Your task to perform on an android device: open the mobile data screen to see how much data has been used Image 0: 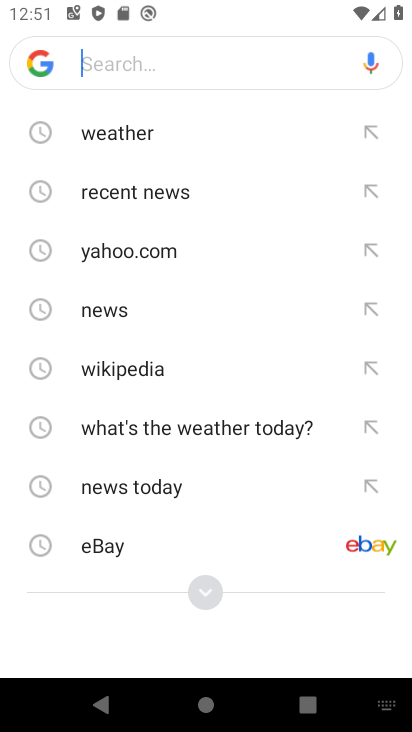
Step 0: press home button
Your task to perform on an android device: open the mobile data screen to see how much data has been used Image 1: 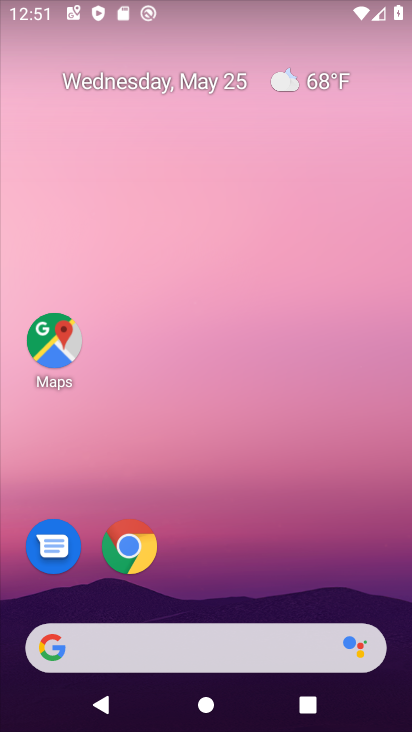
Step 1: drag from (246, 589) to (260, 332)
Your task to perform on an android device: open the mobile data screen to see how much data has been used Image 2: 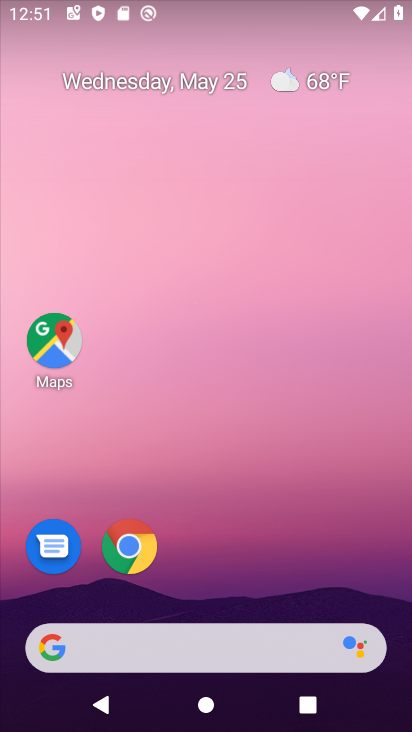
Step 2: drag from (283, 500) to (299, 38)
Your task to perform on an android device: open the mobile data screen to see how much data has been used Image 3: 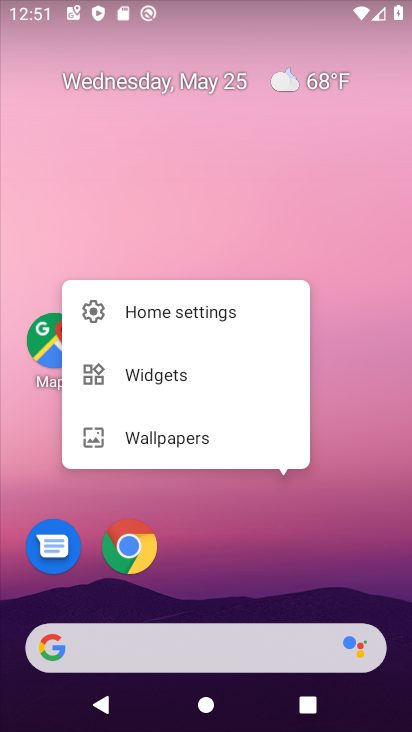
Step 3: click (286, 536)
Your task to perform on an android device: open the mobile data screen to see how much data has been used Image 4: 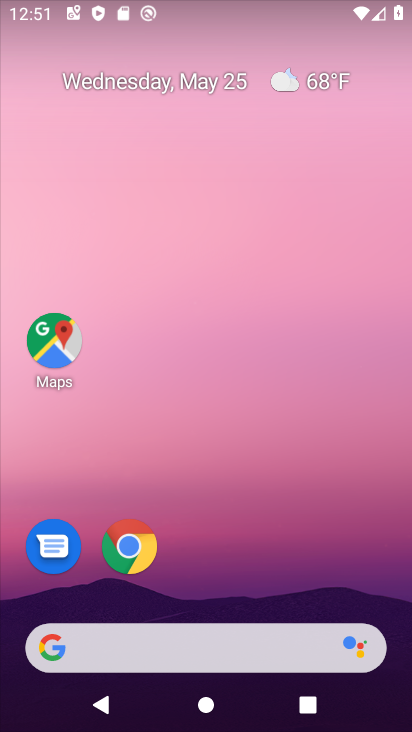
Step 4: drag from (286, 536) to (282, 149)
Your task to perform on an android device: open the mobile data screen to see how much data has been used Image 5: 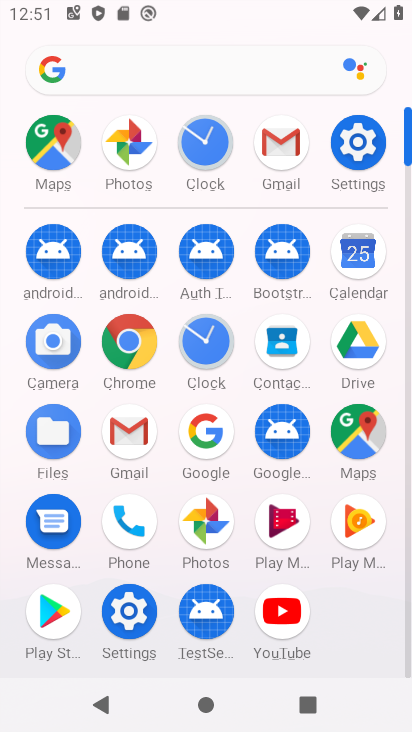
Step 5: click (353, 158)
Your task to perform on an android device: open the mobile data screen to see how much data has been used Image 6: 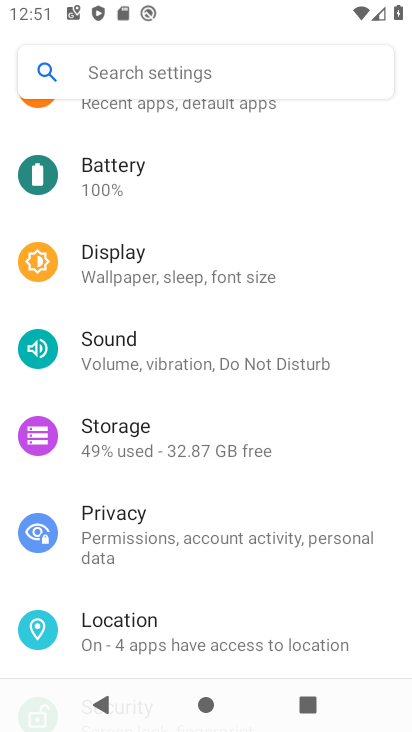
Step 6: drag from (214, 212) to (265, 658)
Your task to perform on an android device: open the mobile data screen to see how much data has been used Image 7: 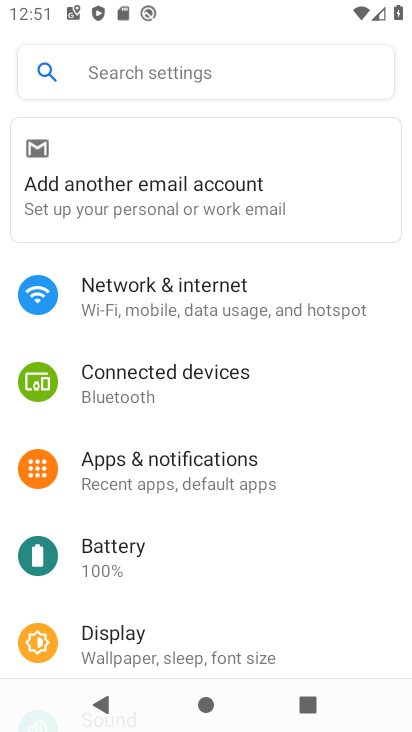
Step 7: click (201, 332)
Your task to perform on an android device: open the mobile data screen to see how much data has been used Image 8: 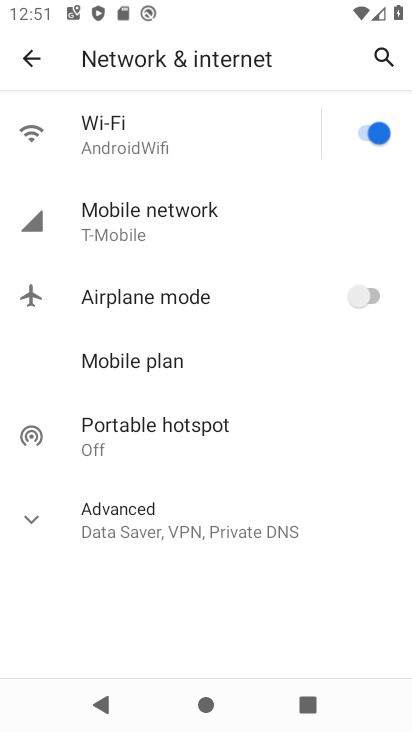
Step 8: click (116, 227)
Your task to perform on an android device: open the mobile data screen to see how much data has been used Image 9: 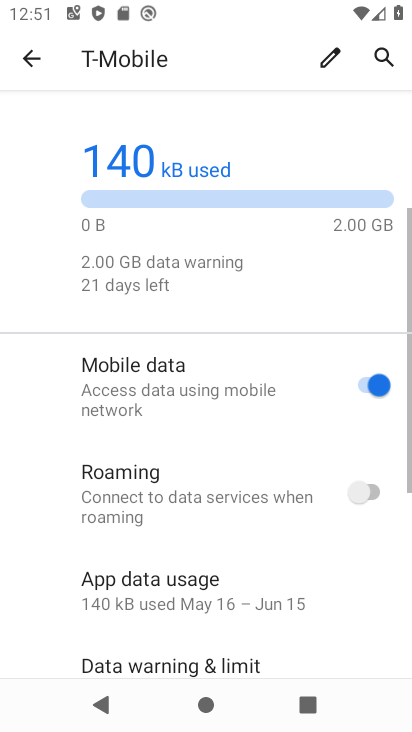
Step 9: task complete